Your task to perform on an android device: What's the weather going to be tomorrow? Image 0: 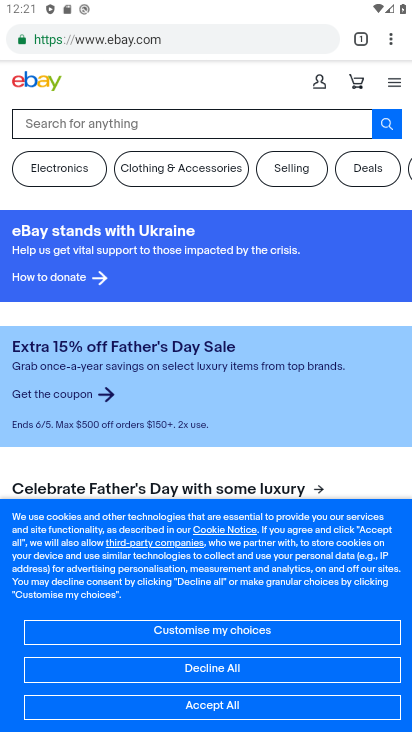
Step 0: press home button
Your task to perform on an android device: What's the weather going to be tomorrow? Image 1: 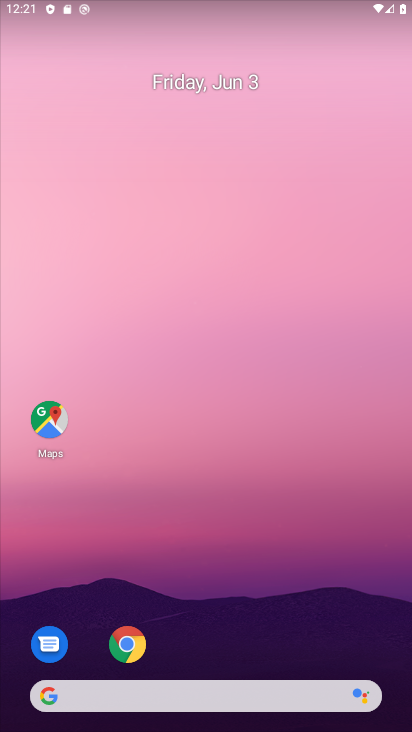
Step 1: click (180, 701)
Your task to perform on an android device: What's the weather going to be tomorrow? Image 2: 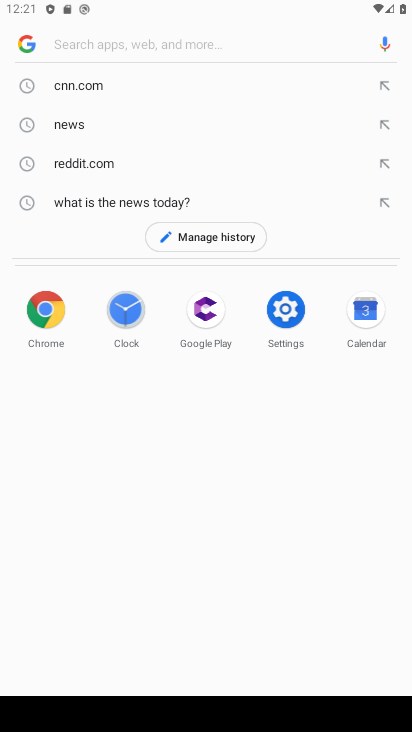
Step 2: type "weather"
Your task to perform on an android device: What's the weather going to be tomorrow? Image 3: 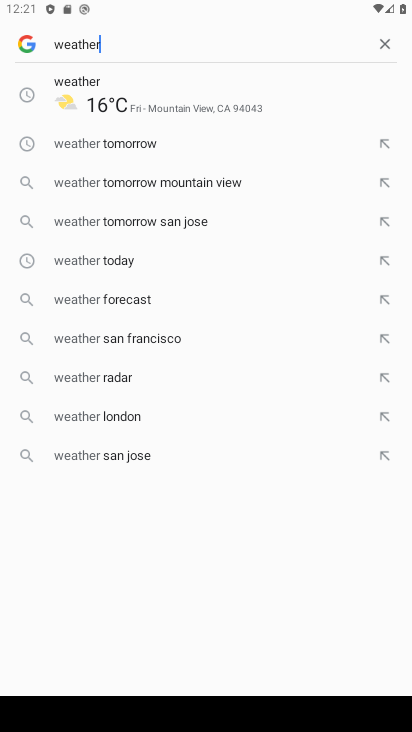
Step 3: click (124, 151)
Your task to perform on an android device: What's the weather going to be tomorrow? Image 4: 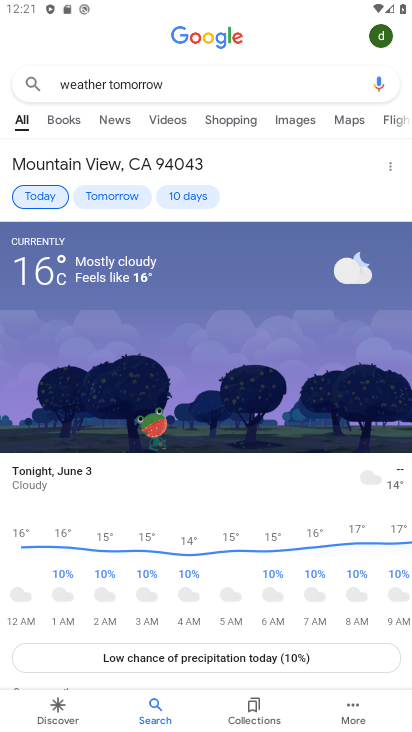
Step 4: drag from (189, 455) to (193, 414)
Your task to perform on an android device: What's the weather going to be tomorrow? Image 5: 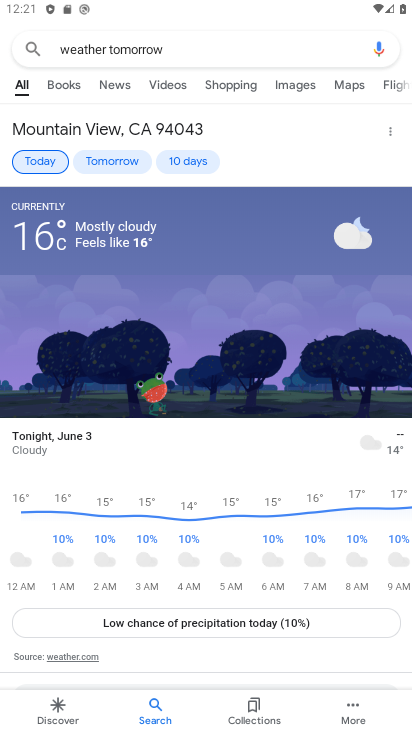
Step 5: click (118, 159)
Your task to perform on an android device: What's the weather going to be tomorrow? Image 6: 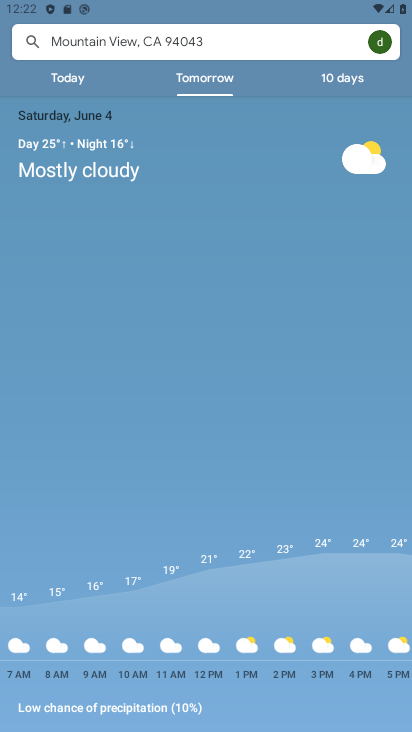
Step 6: task complete